Your task to perform on an android device: Show me popular games on the Play Store Image 0: 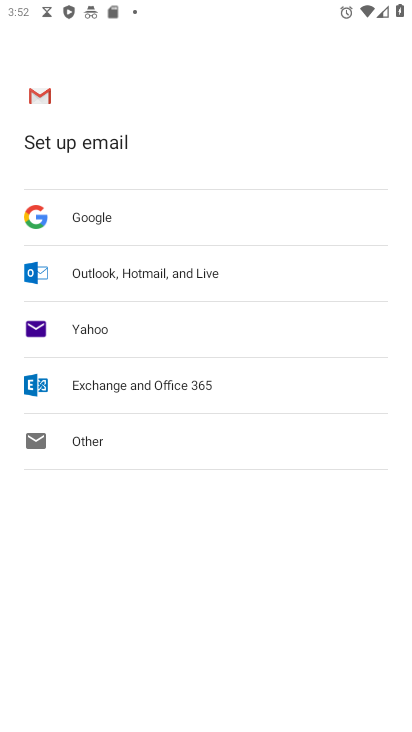
Step 0: press back button
Your task to perform on an android device: Show me popular games on the Play Store Image 1: 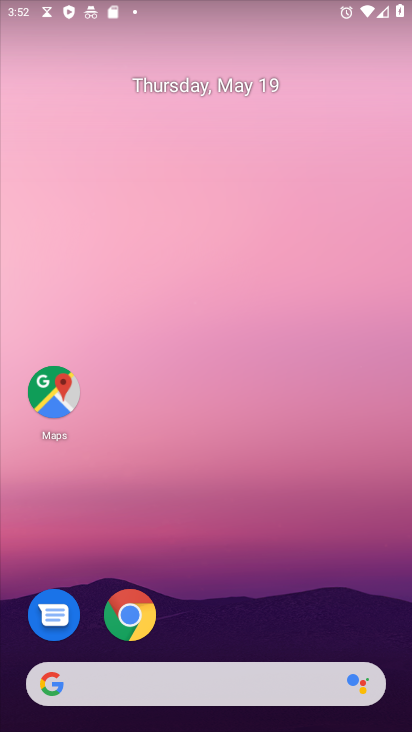
Step 1: drag from (317, 679) to (305, 65)
Your task to perform on an android device: Show me popular games on the Play Store Image 2: 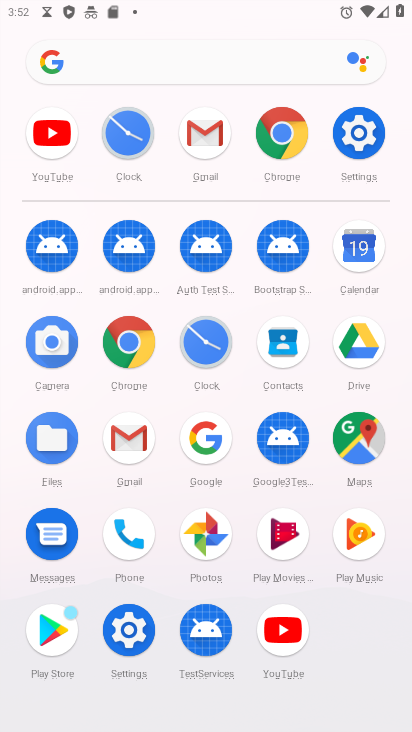
Step 2: click (48, 641)
Your task to perform on an android device: Show me popular games on the Play Store Image 3: 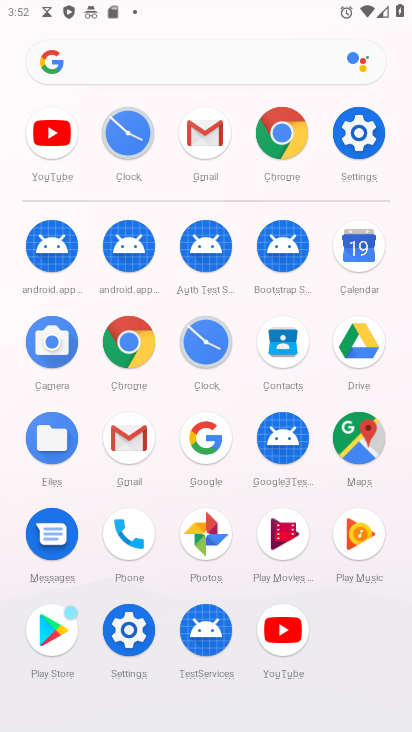
Step 3: click (48, 641)
Your task to perform on an android device: Show me popular games on the Play Store Image 4: 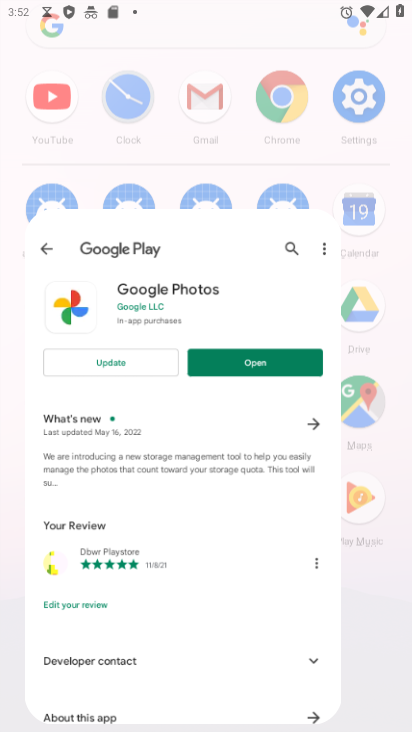
Step 4: click (48, 641)
Your task to perform on an android device: Show me popular games on the Play Store Image 5: 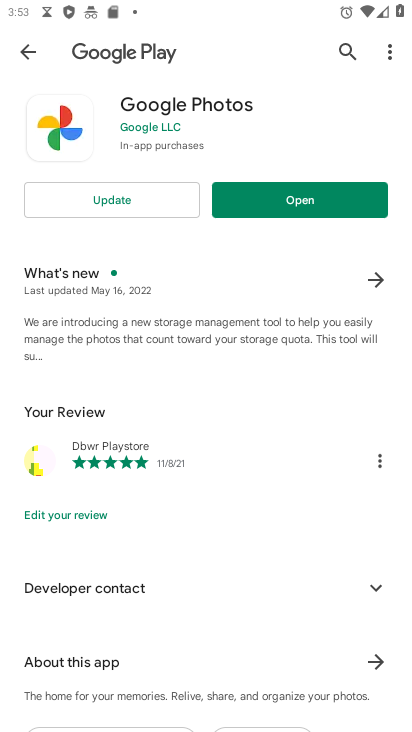
Step 5: click (38, 42)
Your task to perform on an android device: Show me popular games on the Play Store Image 6: 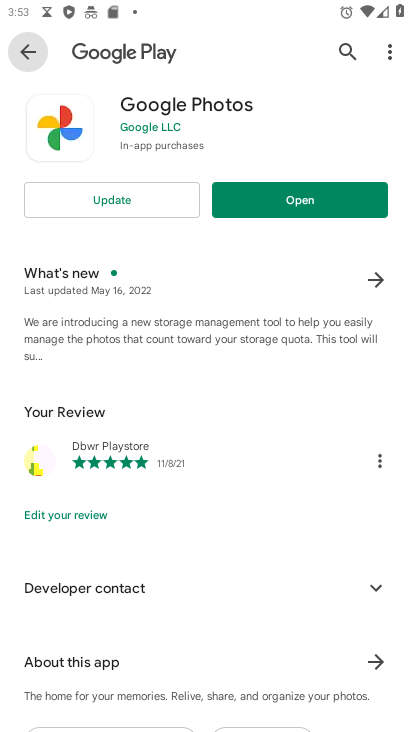
Step 6: click (20, 55)
Your task to perform on an android device: Show me popular games on the Play Store Image 7: 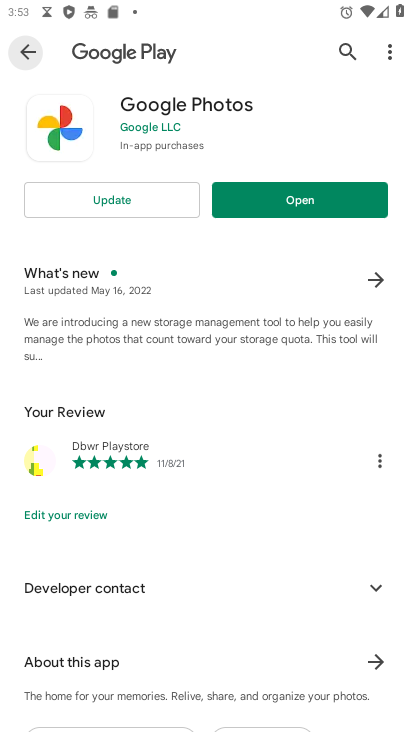
Step 7: click (20, 55)
Your task to perform on an android device: Show me popular games on the Play Store Image 8: 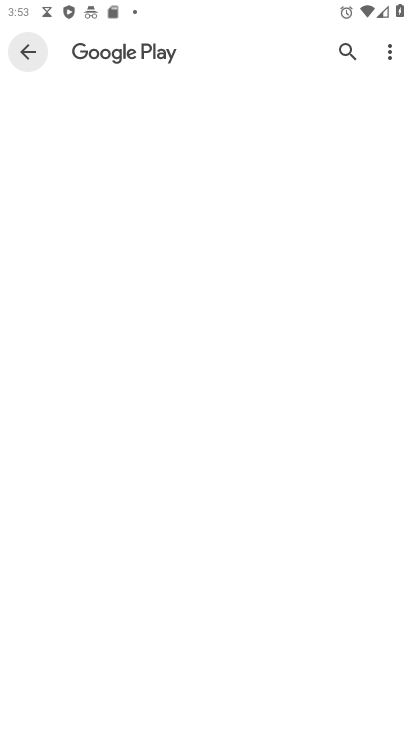
Step 8: click (20, 55)
Your task to perform on an android device: Show me popular games on the Play Store Image 9: 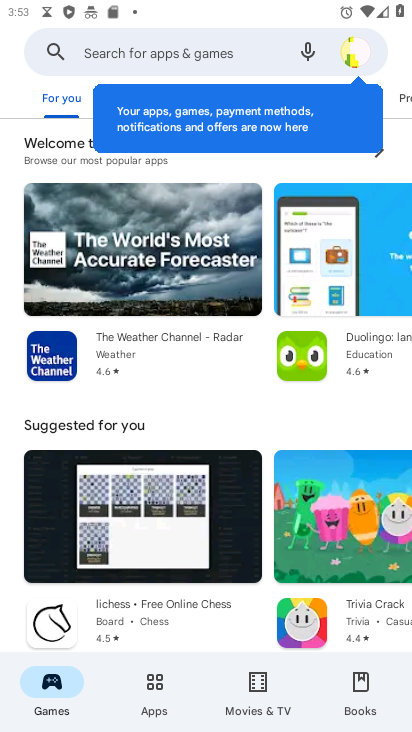
Step 9: press back button
Your task to perform on an android device: Show me popular games on the Play Store Image 10: 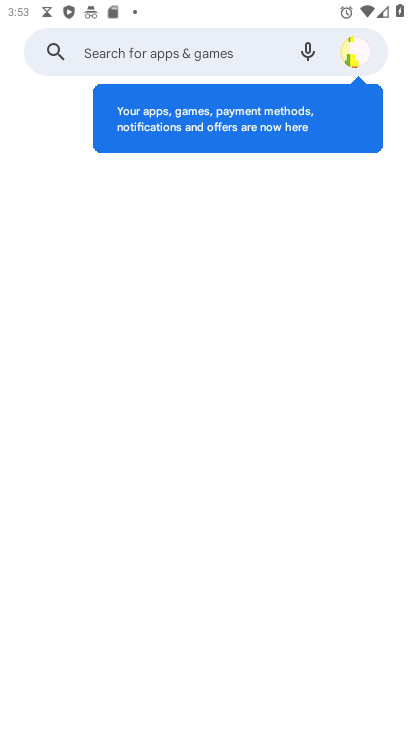
Step 10: press back button
Your task to perform on an android device: Show me popular games on the Play Store Image 11: 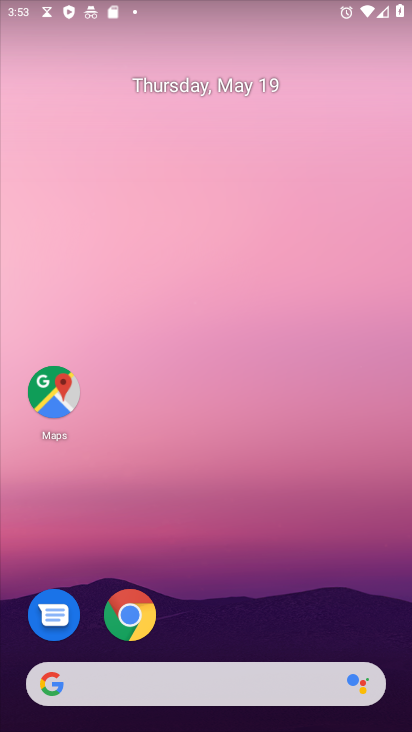
Step 11: drag from (339, 633) to (247, 89)
Your task to perform on an android device: Show me popular games on the Play Store Image 12: 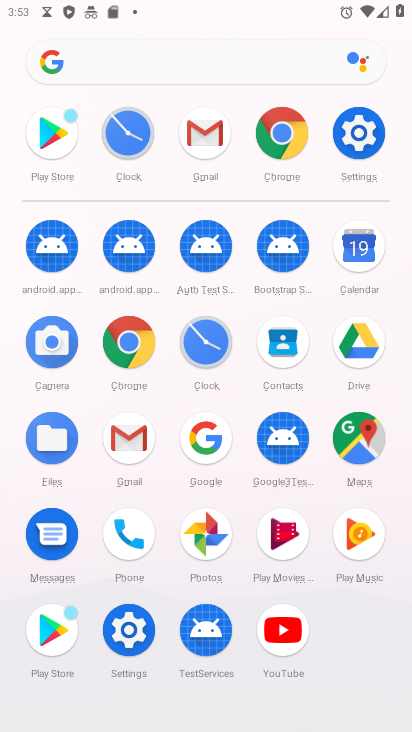
Step 12: click (49, 626)
Your task to perform on an android device: Show me popular games on the Play Store Image 13: 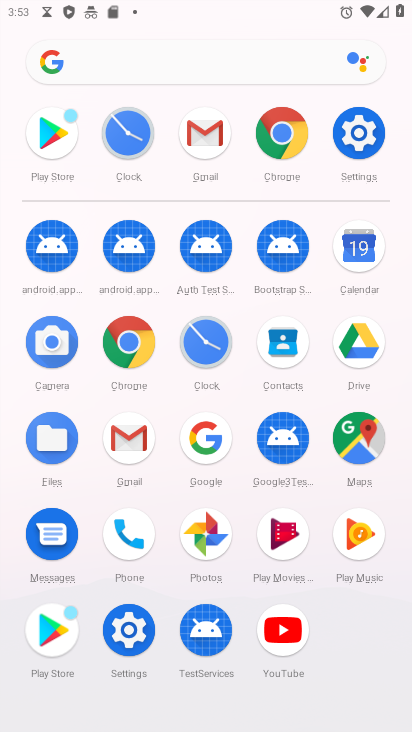
Step 13: click (53, 629)
Your task to perform on an android device: Show me popular games on the Play Store Image 14: 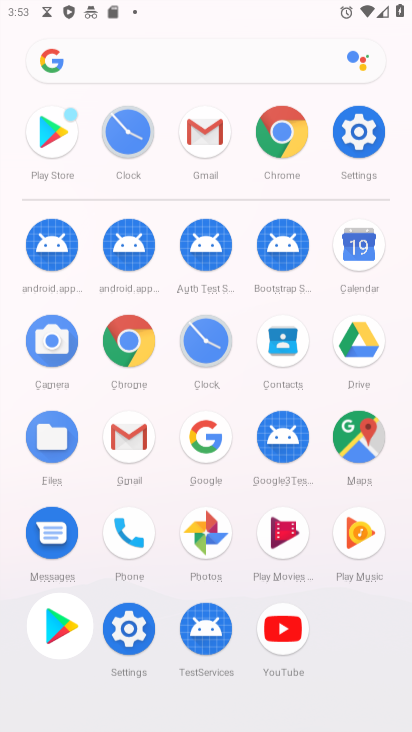
Step 14: click (47, 623)
Your task to perform on an android device: Show me popular games on the Play Store Image 15: 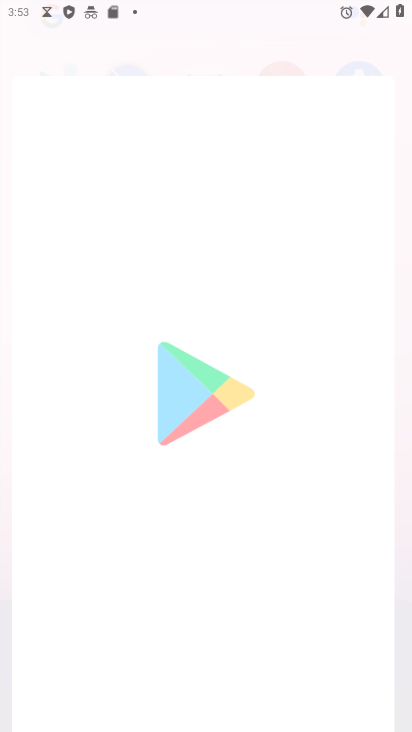
Step 15: click (47, 623)
Your task to perform on an android device: Show me popular games on the Play Store Image 16: 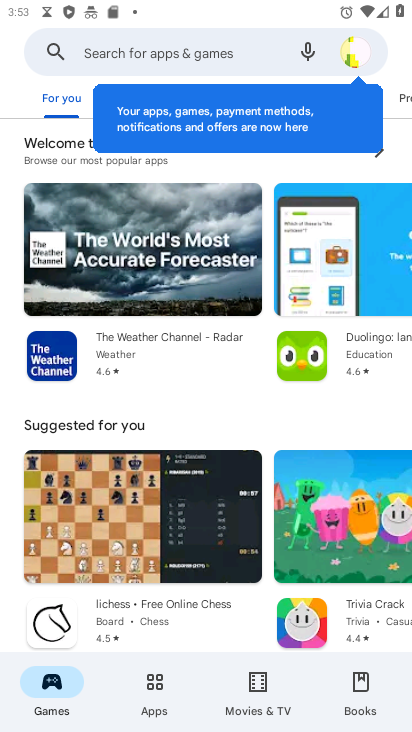
Step 16: click (90, 50)
Your task to perform on an android device: Show me popular games on the Play Store Image 17: 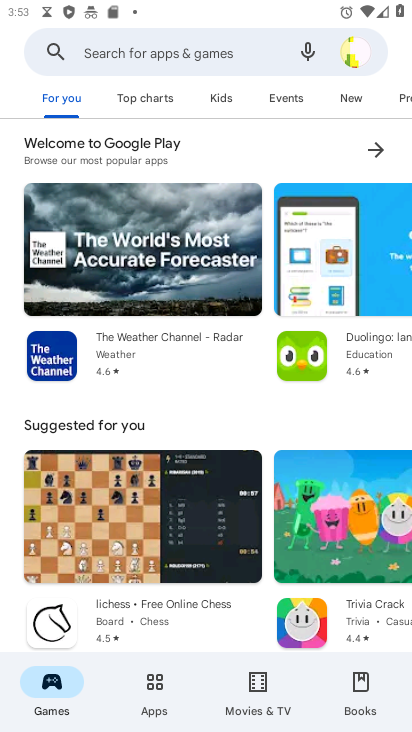
Step 17: click (89, 51)
Your task to perform on an android device: Show me popular games on the Play Store Image 18: 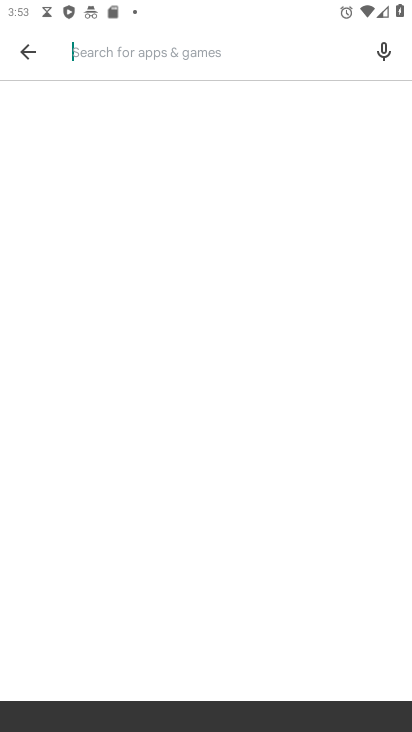
Step 18: click (88, 52)
Your task to perform on an android device: Show me popular games on the Play Store Image 19: 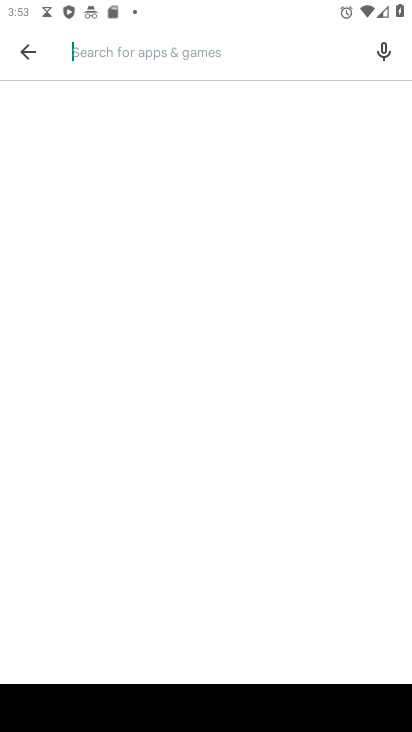
Step 19: type "popular games"
Your task to perform on an android device: Show me popular games on the Play Store Image 20: 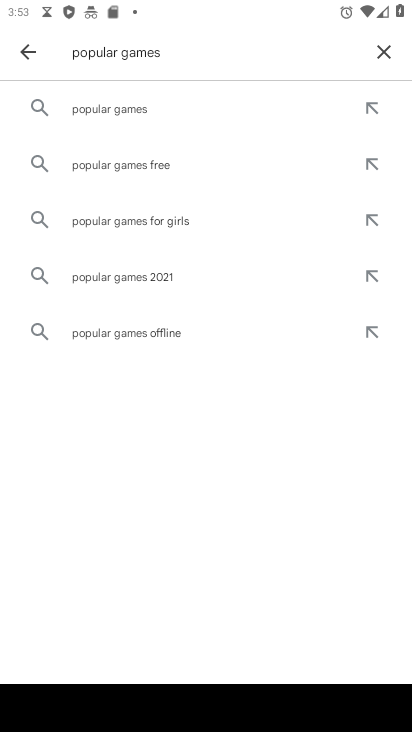
Step 20: click (106, 119)
Your task to perform on an android device: Show me popular games on the Play Store Image 21: 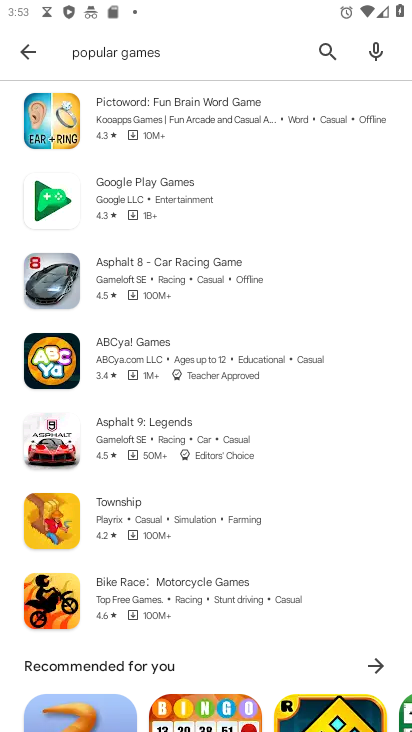
Step 21: task complete